Your task to perform on an android device: Search for sushi restaurants on Maps Image 0: 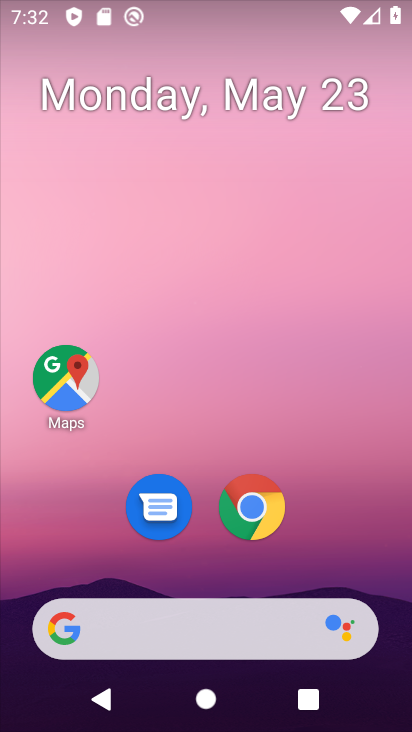
Step 0: drag from (345, 532) to (314, 193)
Your task to perform on an android device: Search for sushi restaurants on Maps Image 1: 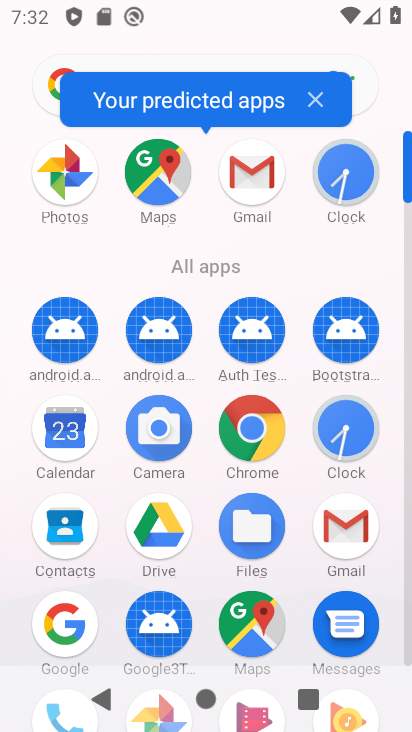
Step 1: click (247, 624)
Your task to perform on an android device: Search for sushi restaurants on Maps Image 2: 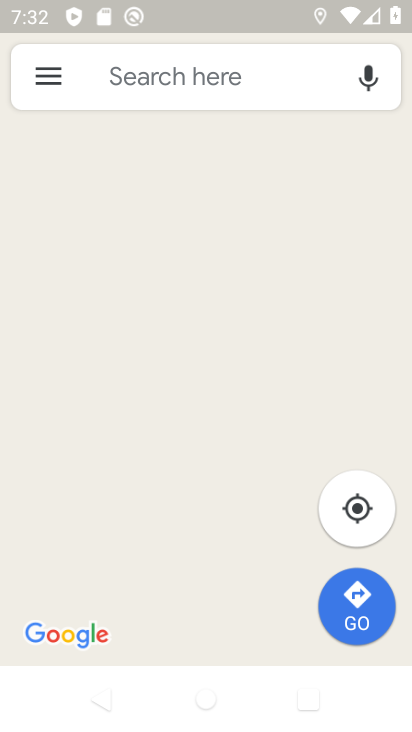
Step 2: click (184, 66)
Your task to perform on an android device: Search for sushi restaurants on Maps Image 3: 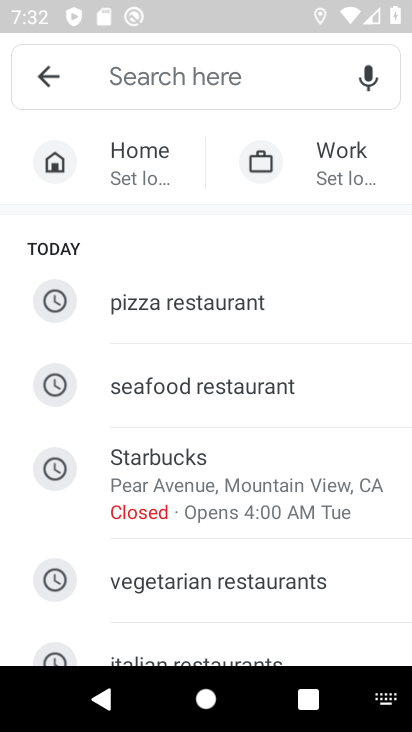
Step 3: type "sushi restaurants "
Your task to perform on an android device: Search for sushi restaurants on Maps Image 4: 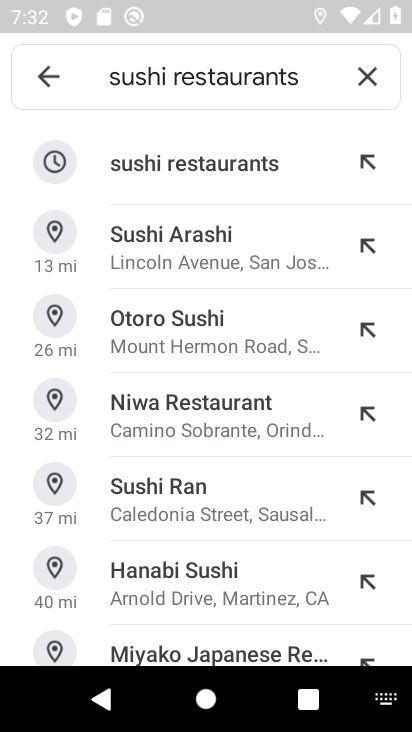
Step 4: click (145, 163)
Your task to perform on an android device: Search for sushi restaurants on Maps Image 5: 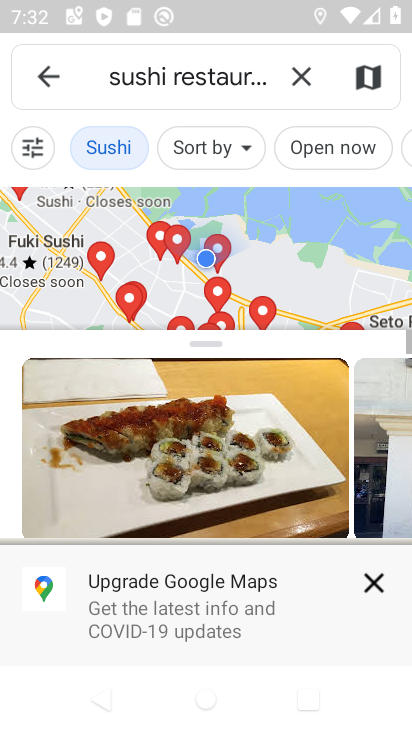
Step 5: click (371, 581)
Your task to perform on an android device: Search for sushi restaurants on Maps Image 6: 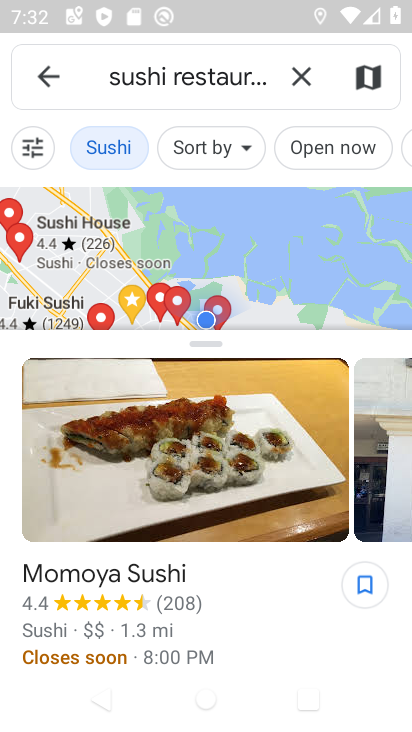
Step 6: task complete